Your task to perform on an android device: Is it going to rain this weekend? Image 0: 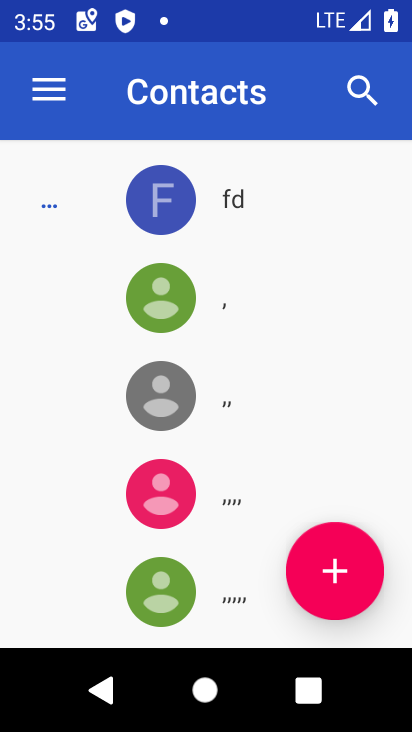
Step 0: press home button
Your task to perform on an android device: Is it going to rain this weekend? Image 1: 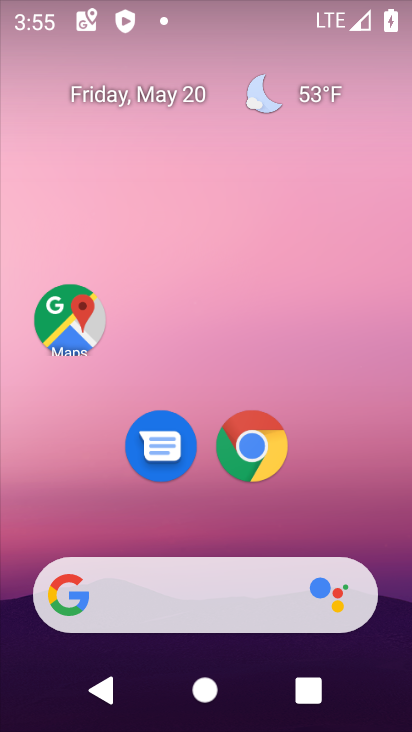
Step 1: drag from (368, 499) to (400, 52)
Your task to perform on an android device: Is it going to rain this weekend? Image 2: 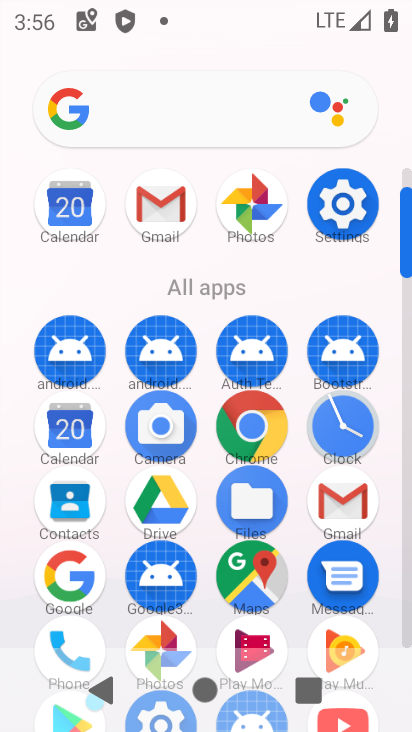
Step 2: click (90, 110)
Your task to perform on an android device: Is it going to rain this weekend? Image 3: 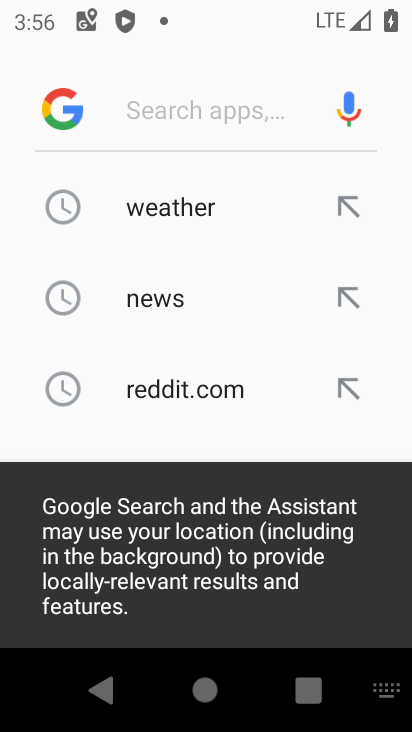
Step 3: click (90, 110)
Your task to perform on an android device: Is it going to rain this weekend? Image 4: 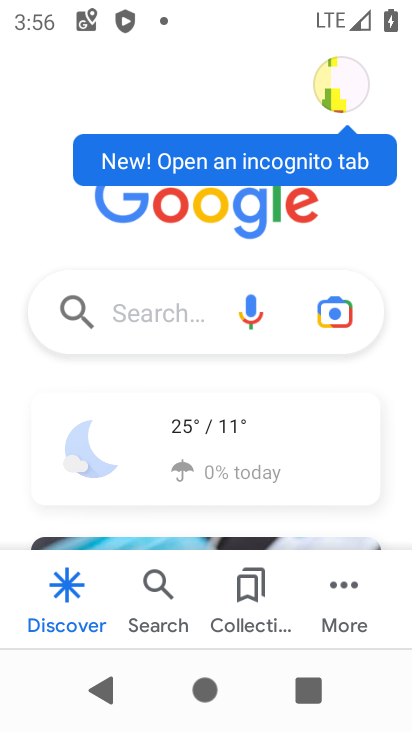
Step 4: click (194, 440)
Your task to perform on an android device: Is it going to rain this weekend? Image 5: 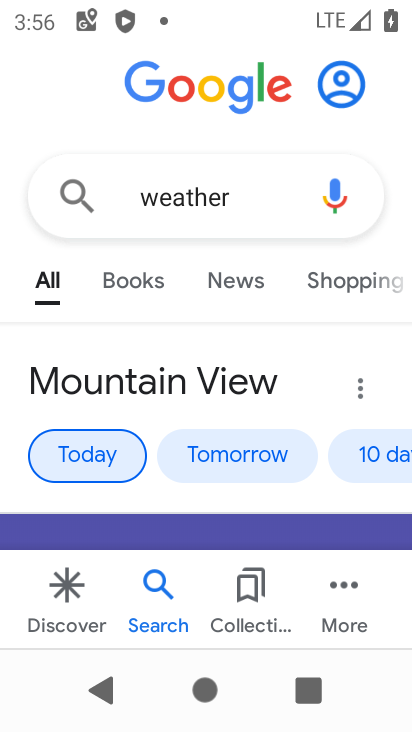
Step 5: task complete